Your task to perform on an android device: turn off priority inbox in the gmail app Image 0: 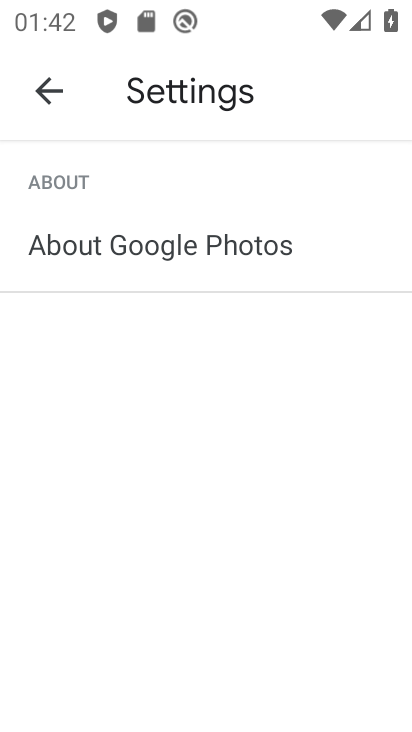
Step 0: press home button
Your task to perform on an android device: turn off priority inbox in the gmail app Image 1: 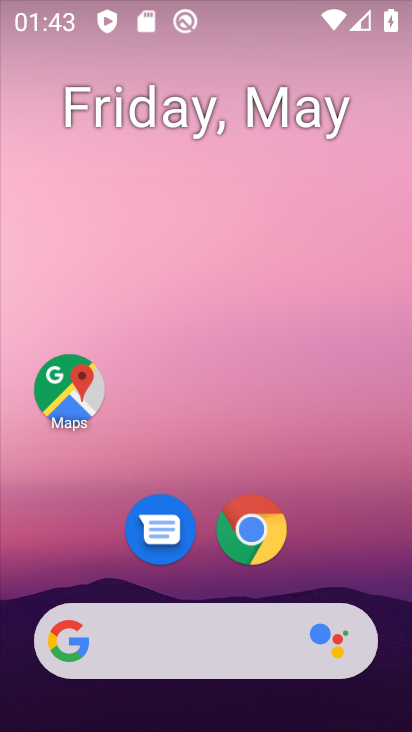
Step 1: drag from (326, 528) to (315, 103)
Your task to perform on an android device: turn off priority inbox in the gmail app Image 2: 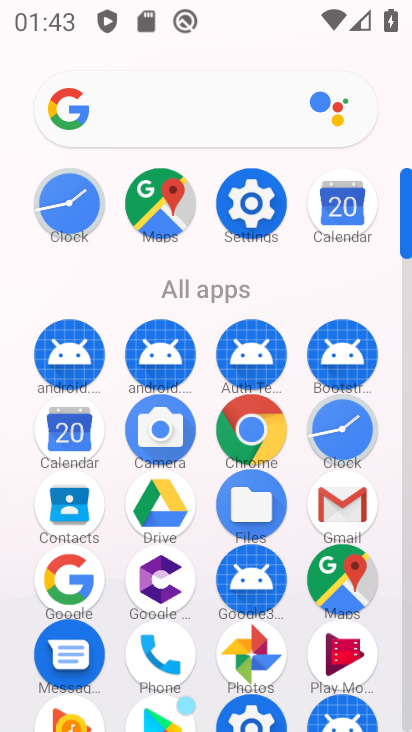
Step 2: click (336, 491)
Your task to perform on an android device: turn off priority inbox in the gmail app Image 3: 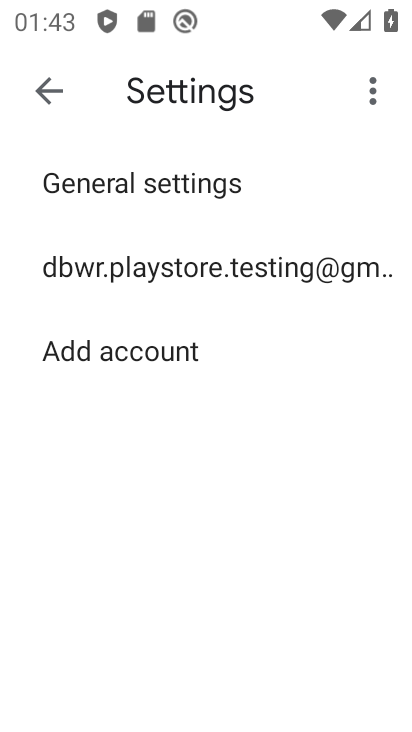
Step 3: click (121, 267)
Your task to perform on an android device: turn off priority inbox in the gmail app Image 4: 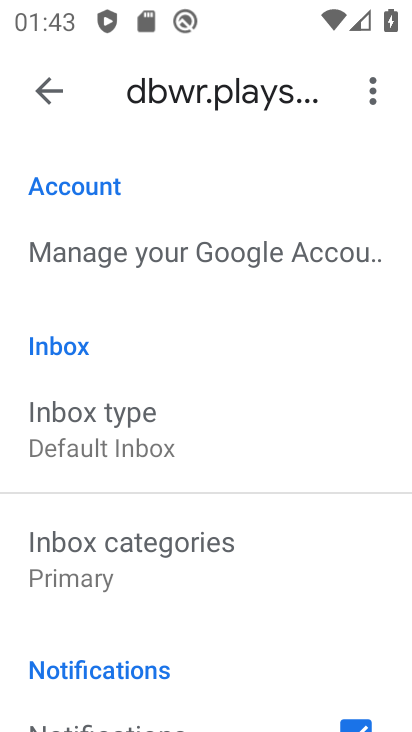
Step 4: press back button
Your task to perform on an android device: turn off priority inbox in the gmail app Image 5: 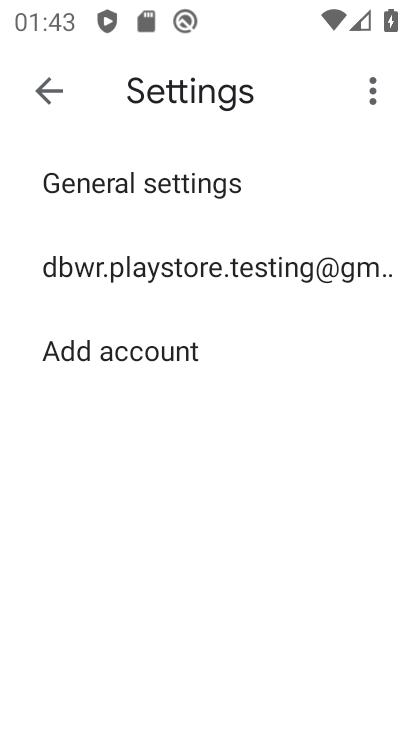
Step 5: click (116, 262)
Your task to perform on an android device: turn off priority inbox in the gmail app Image 6: 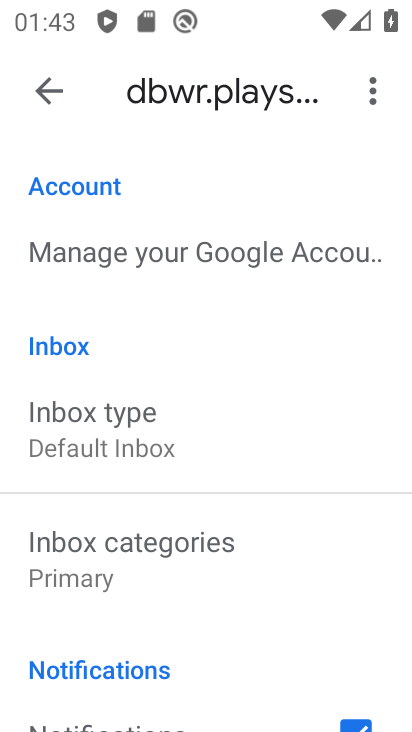
Step 6: click (147, 434)
Your task to perform on an android device: turn off priority inbox in the gmail app Image 7: 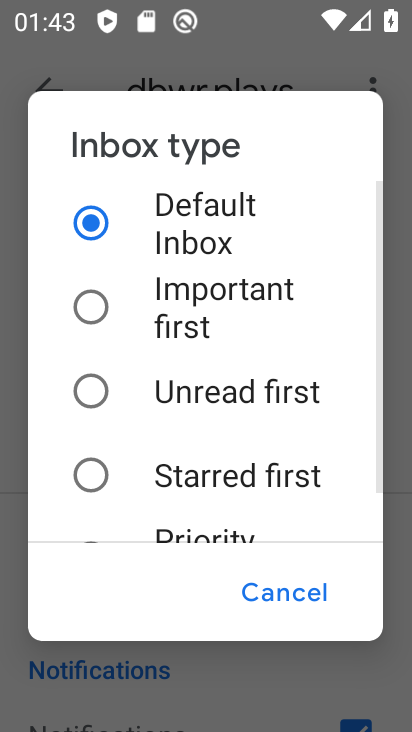
Step 7: task complete